Your task to perform on an android device: turn on showing notifications on the lock screen Image 0: 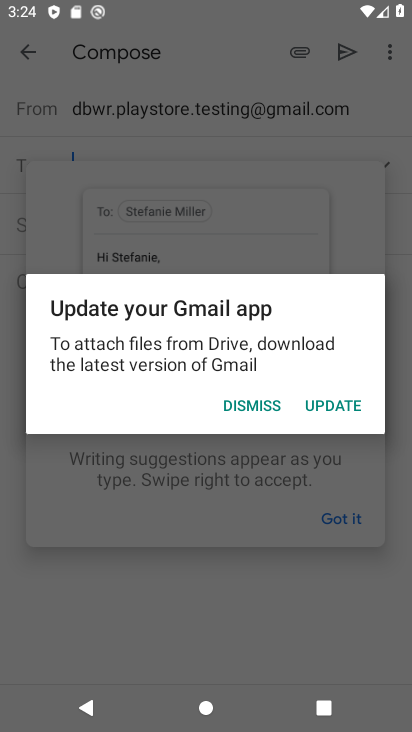
Step 0: press back button
Your task to perform on an android device: turn on showing notifications on the lock screen Image 1: 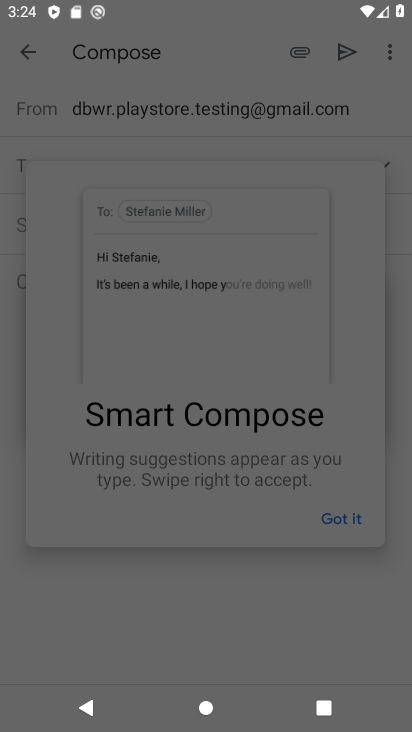
Step 1: press back button
Your task to perform on an android device: turn on showing notifications on the lock screen Image 2: 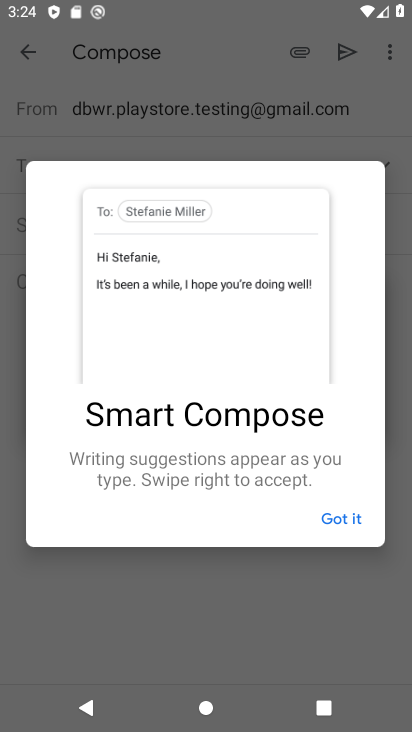
Step 2: press back button
Your task to perform on an android device: turn on showing notifications on the lock screen Image 3: 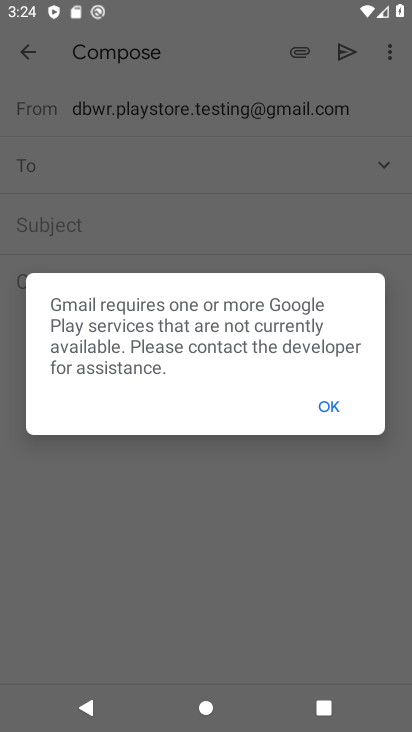
Step 3: press home button
Your task to perform on an android device: turn on showing notifications on the lock screen Image 4: 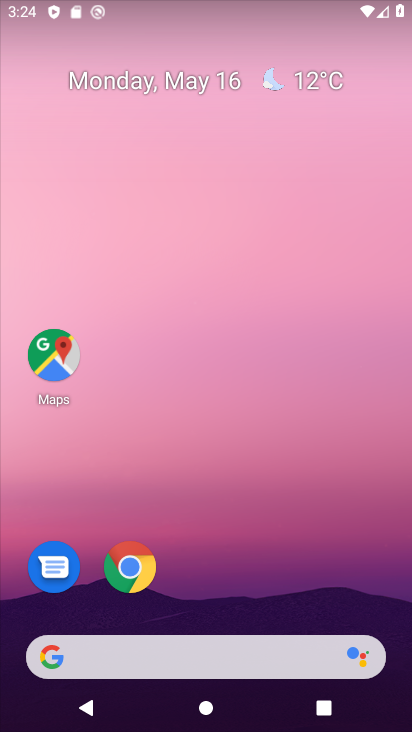
Step 4: drag from (273, 568) to (227, 103)
Your task to perform on an android device: turn on showing notifications on the lock screen Image 5: 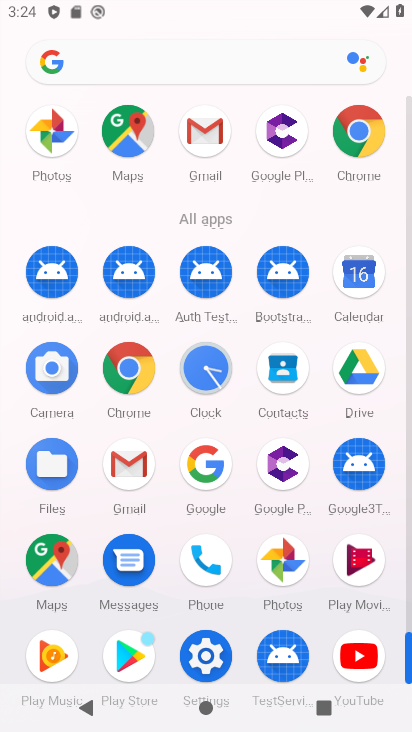
Step 5: drag from (16, 581) to (11, 272)
Your task to perform on an android device: turn on showing notifications on the lock screen Image 6: 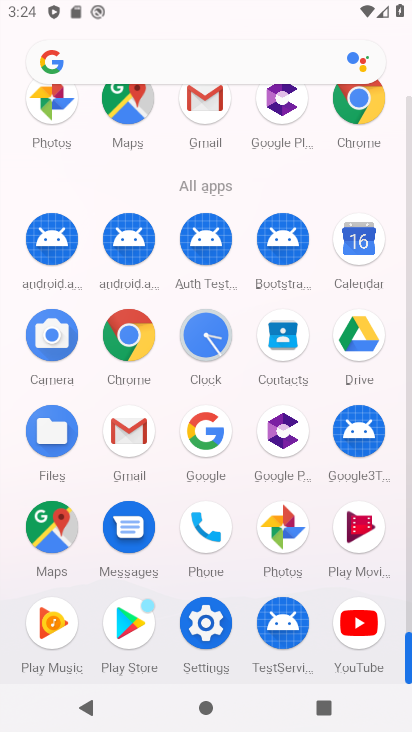
Step 6: click (208, 619)
Your task to perform on an android device: turn on showing notifications on the lock screen Image 7: 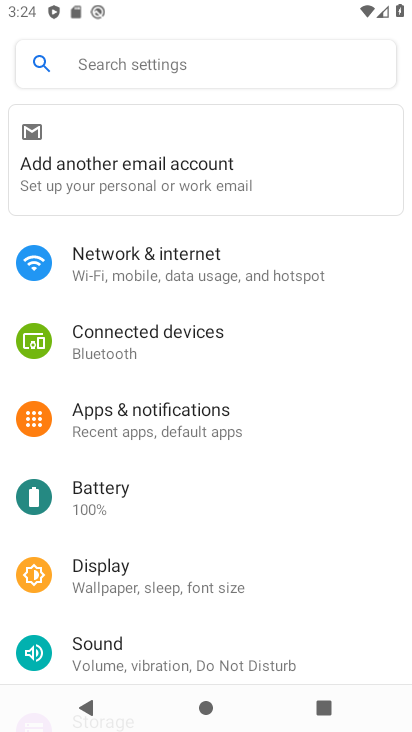
Step 7: drag from (323, 530) to (318, 132)
Your task to perform on an android device: turn on showing notifications on the lock screen Image 8: 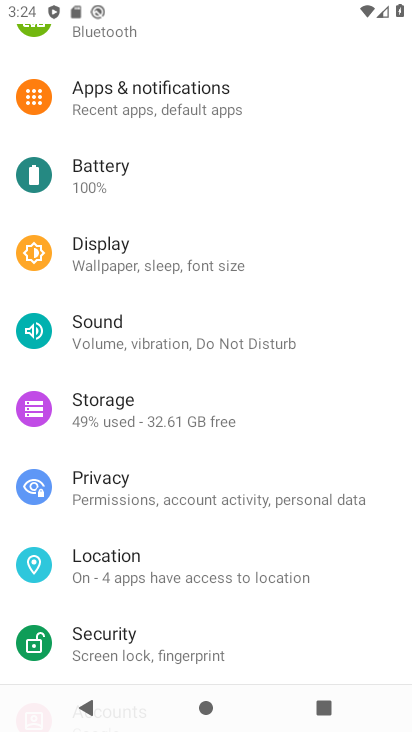
Step 8: drag from (239, 220) to (253, 456)
Your task to perform on an android device: turn on showing notifications on the lock screen Image 9: 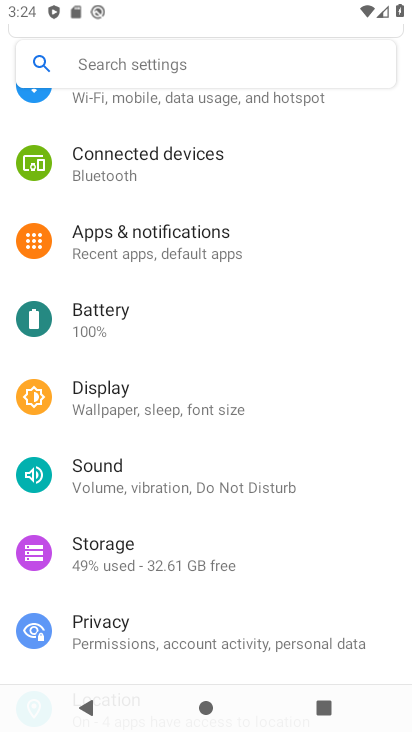
Step 9: click (192, 243)
Your task to perform on an android device: turn on showing notifications on the lock screen Image 10: 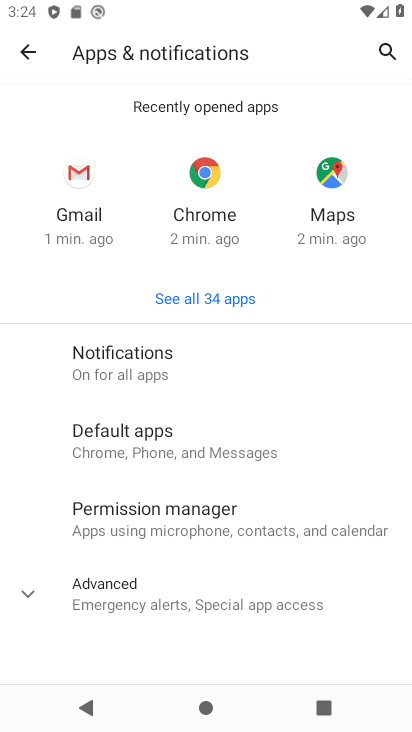
Step 10: click (20, 590)
Your task to perform on an android device: turn on showing notifications on the lock screen Image 11: 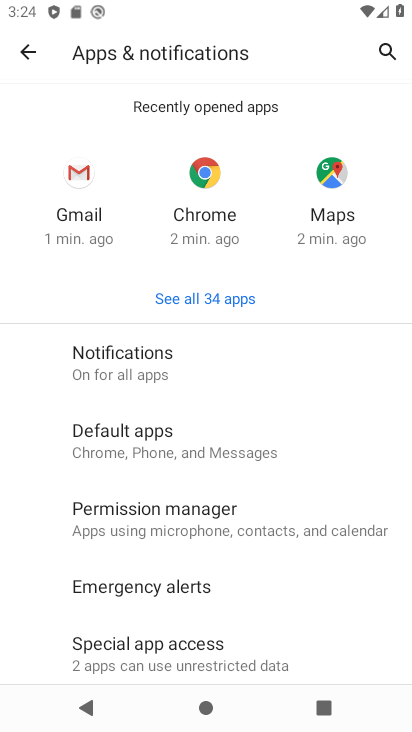
Step 11: drag from (333, 536) to (344, 189)
Your task to perform on an android device: turn on showing notifications on the lock screen Image 12: 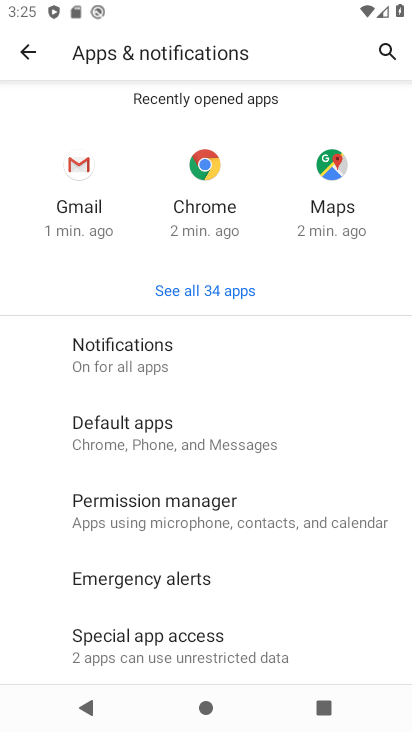
Step 12: click (188, 348)
Your task to perform on an android device: turn on showing notifications on the lock screen Image 13: 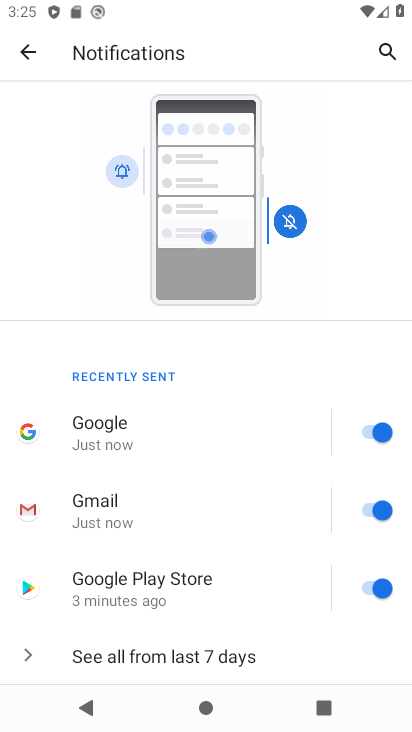
Step 13: drag from (229, 514) to (237, 70)
Your task to perform on an android device: turn on showing notifications on the lock screen Image 14: 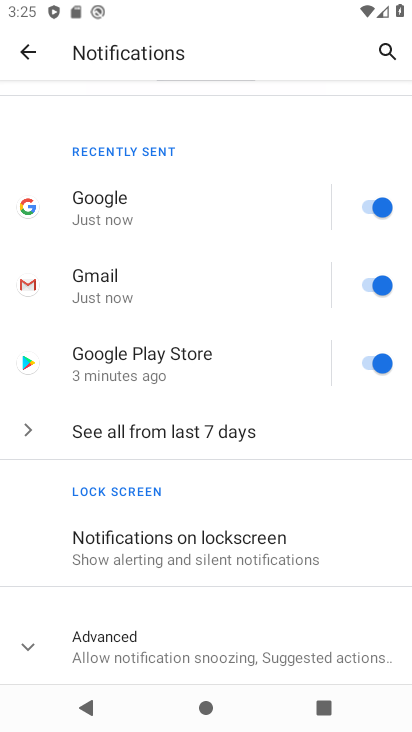
Step 14: click (236, 543)
Your task to perform on an android device: turn on showing notifications on the lock screen Image 15: 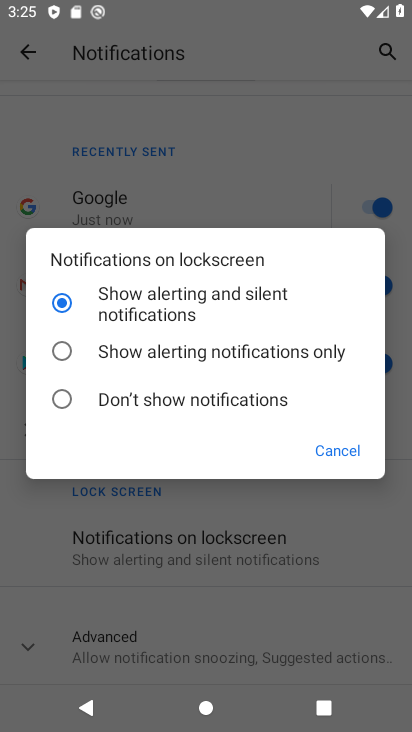
Step 15: click (203, 306)
Your task to perform on an android device: turn on showing notifications on the lock screen Image 16: 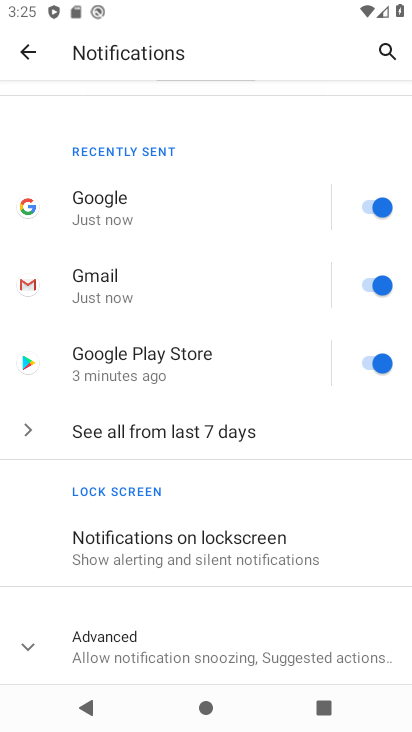
Step 16: task complete